Your task to perform on an android device: Open calendar and show me the first week of next month Image 0: 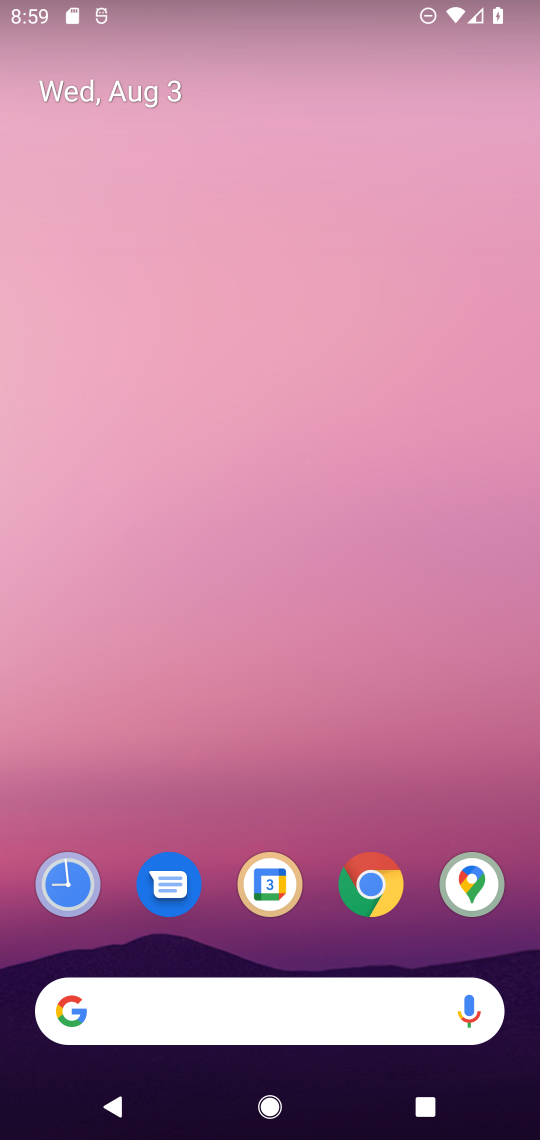
Step 0: drag from (34, 1090) to (293, 398)
Your task to perform on an android device: Open calendar and show me the first week of next month Image 1: 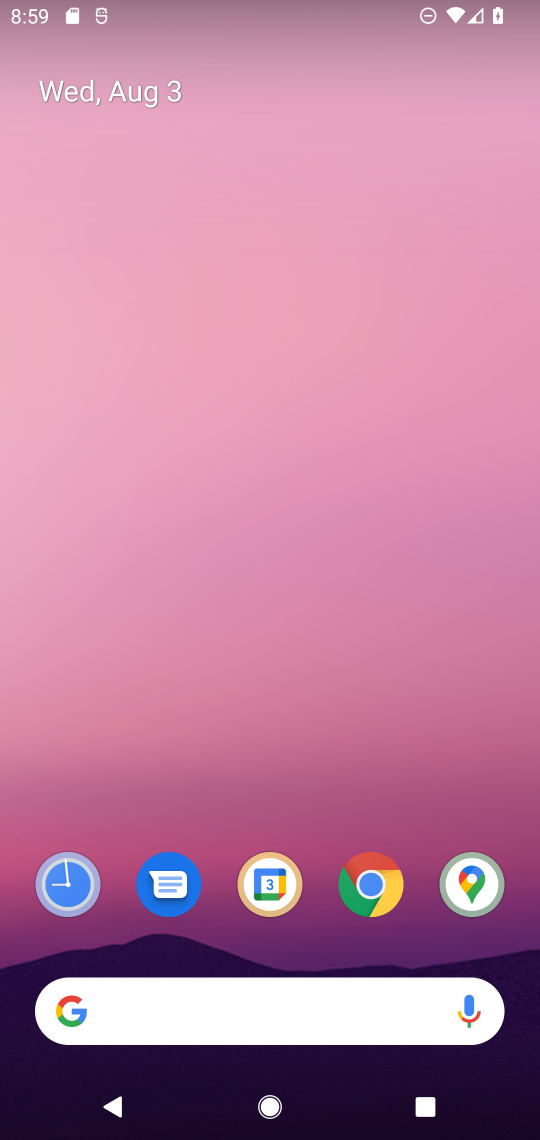
Step 1: drag from (38, 1051) to (224, 152)
Your task to perform on an android device: Open calendar and show me the first week of next month Image 2: 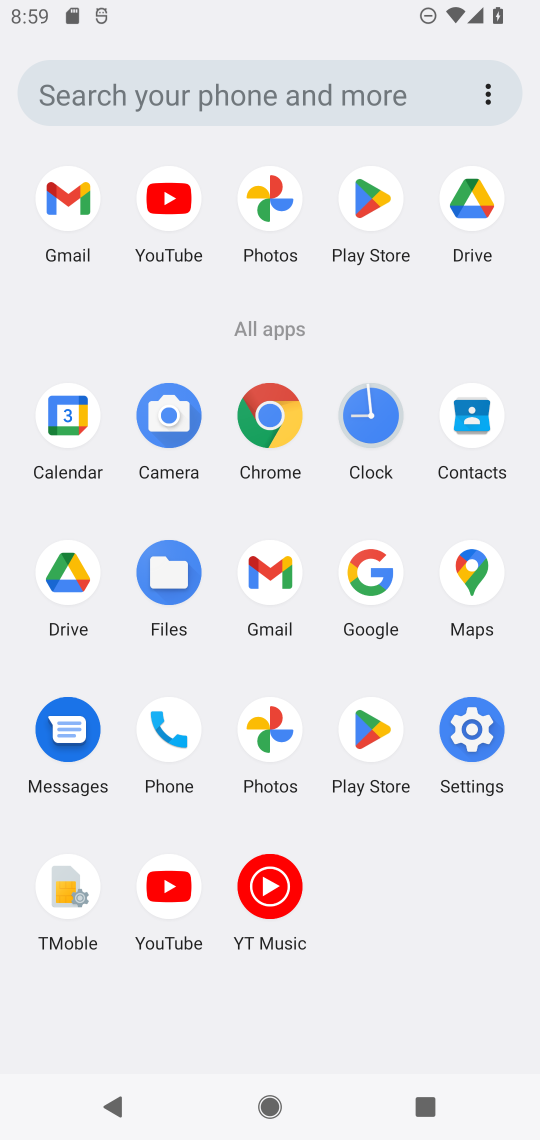
Step 2: click (50, 393)
Your task to perform on an android device: Open calendar and show me the first week of next month Image 3: 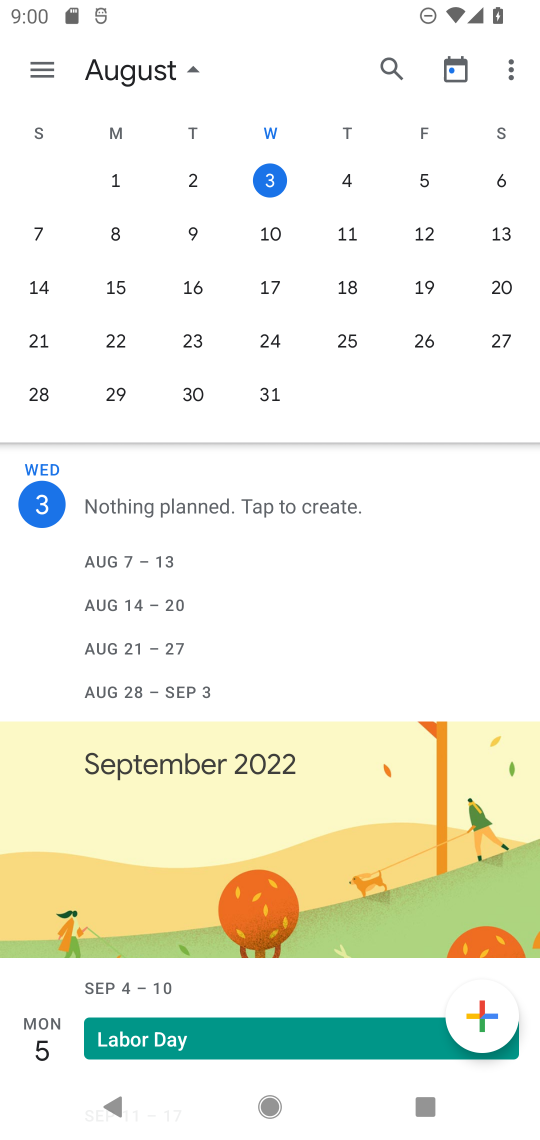
Step 3: task complete